Your task to perform on an android device: turn on wifi Image 0: 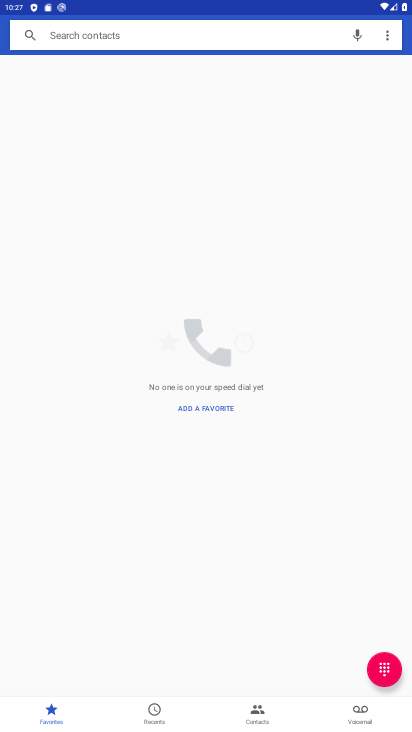
Step 0: drag from (244, 612) to (261, 85)
Your task to perform on an android device: turn on wifi Image 1: 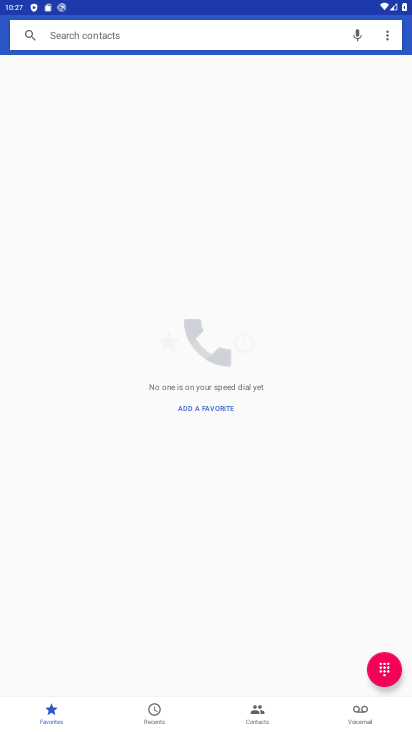
Step 1: task complete